Your task to perform on an android device: install app "Truecaller" Image 0: 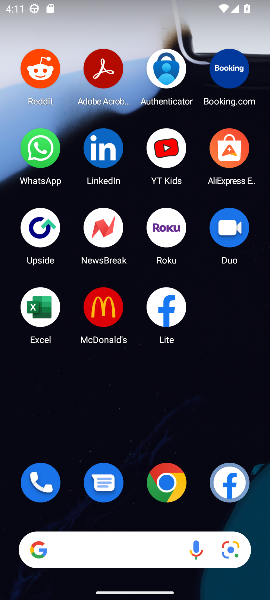
Step 0: press home button
Your task to perform on an android device: install app "Truecaller" Image 1: 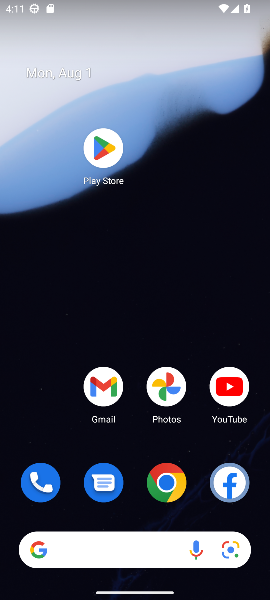
Step 1: click (108, 154)
Your task to perform on an android device: install app "Truecaller" Image 2: 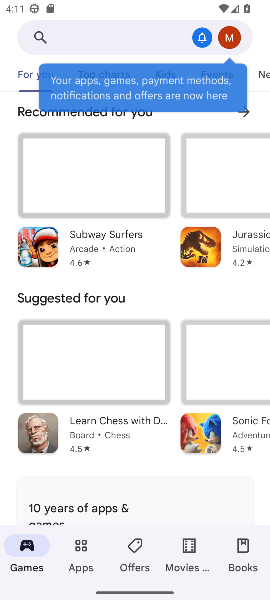
Step 2: click (142, 42)
Your task to perform on an android device: install app "Truecaller" Image 3: 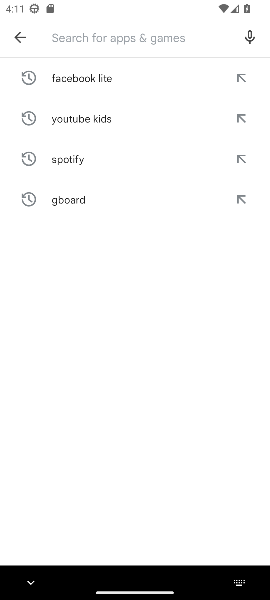
Step 3: type "Truecaller"
Your task to perform on an android device: install app "Truecaller" Image 4: 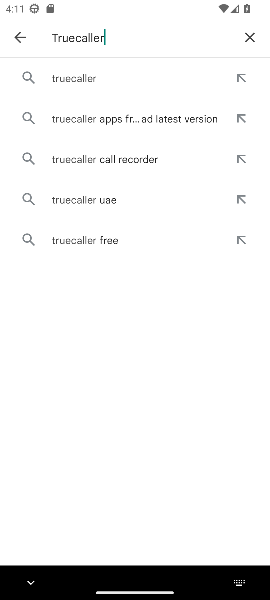
Step 4: click (87, 80)
Your task to perform on an android device: install app "Truecaller" Image 5: 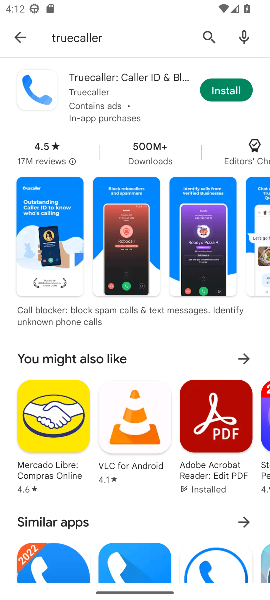
Step 5: click (217, 93)
Your task to perform on an android device: install app "Truecaller" Image 6: 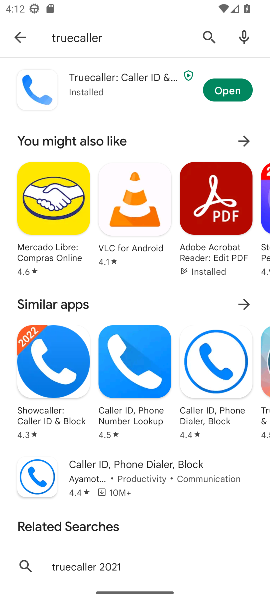
Step 6: task complete